Your task to perform on an android device: Go to accessibility settings Image 0: 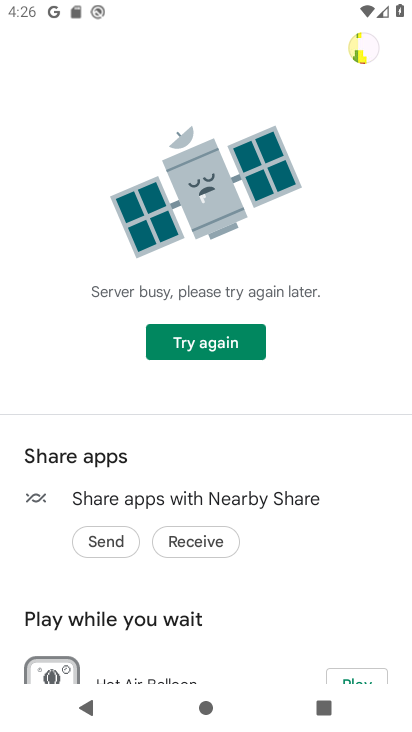
Step 0: press home button
Your task to perform on an android device: Go to accessibility settings Image 1: 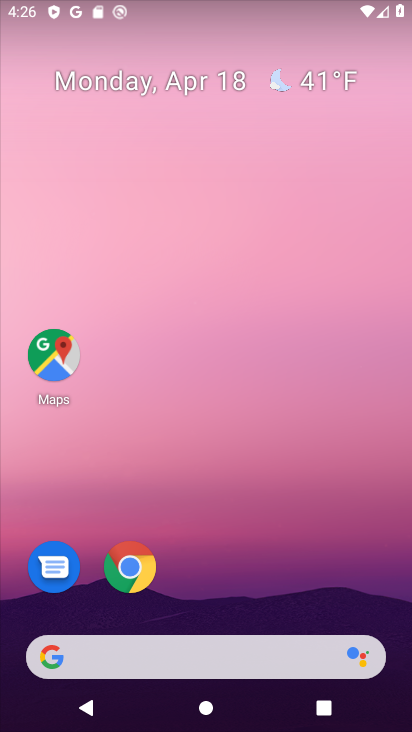
Step 1: drag from (180, 600) to (158, 49)
Your task to perform on an android device: Go to accessibility settings Image 2: 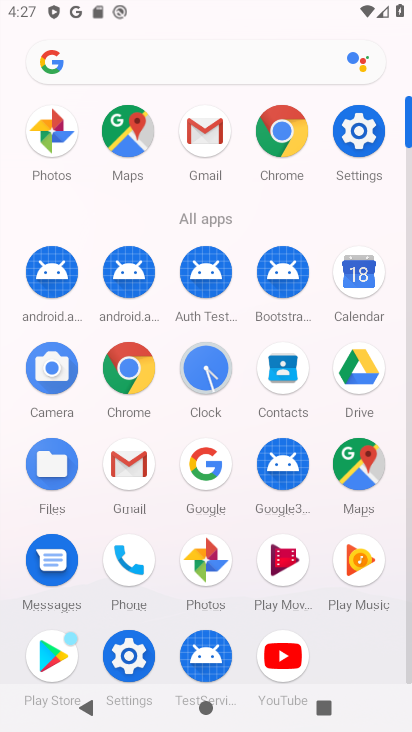
Step 2: click (363, 135)
Your task to perform on an android device: Go to accessibility settings Image 3: 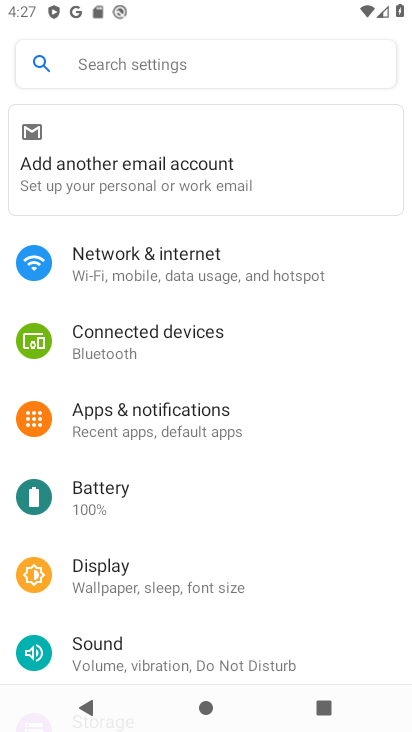
Step 3: drag from (197, 522) to (218, 442)
Your task to perform on an android device: Go to accessibility settings Image 4: 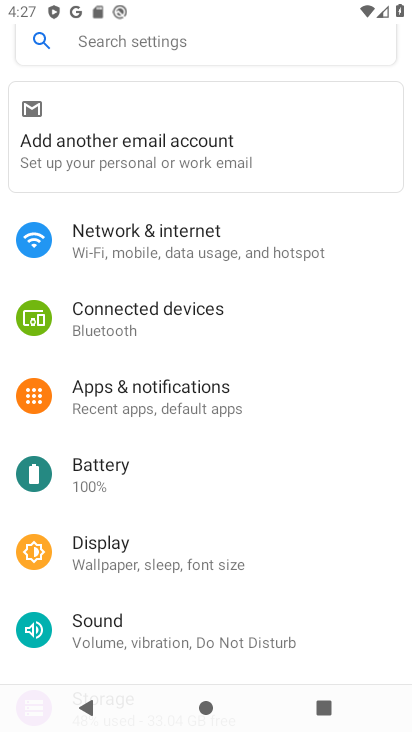
Step 4: drag from (187, 546) to (191, 413)
Your task to perform on an android device: Go to accessibility settings Image 5: 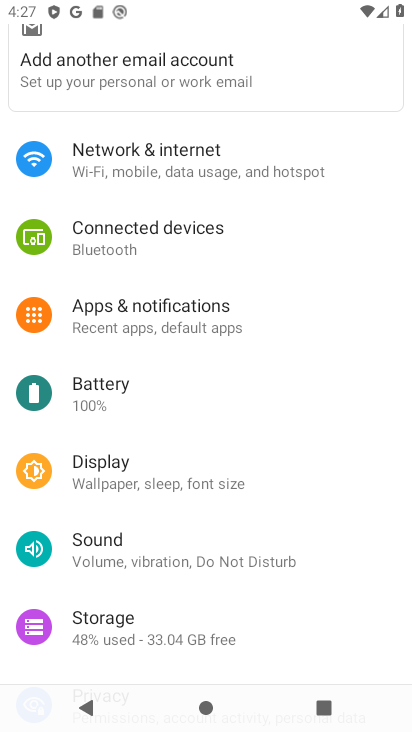
Step 5: drag from (149, 541) to (169, 423)
Your task to perform on an android device: Go to accessibility settings Image 6: 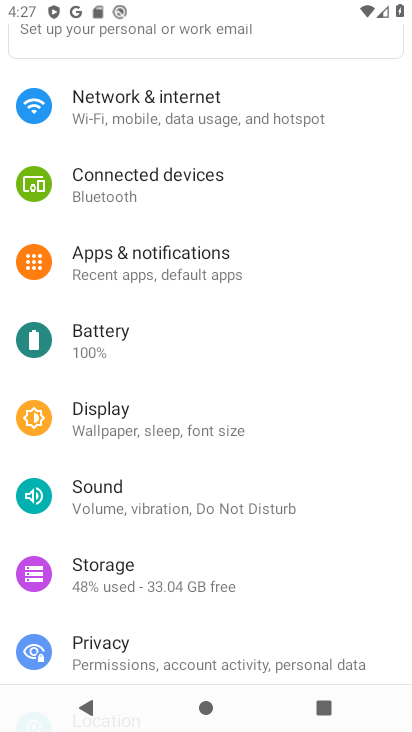
Step 6: drag from (158, 560) to (193, 371)
Your task to perform on an android device: Go to accessibility settings Image 7: 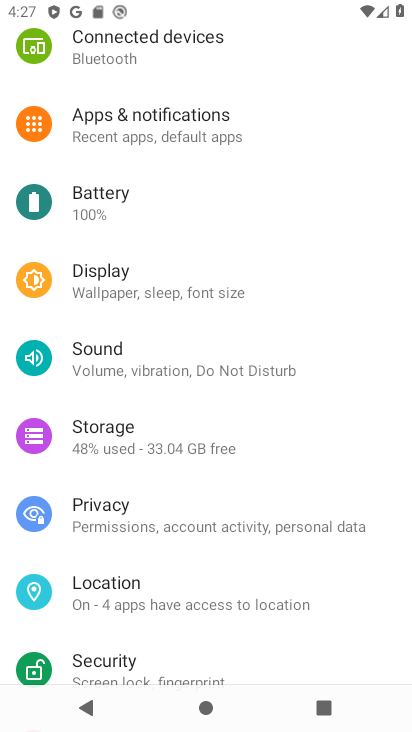
Step 7: drag from (150, 558) to (190, 400)
Your task to perform on an android device: Go to accessibility settings Image 8: 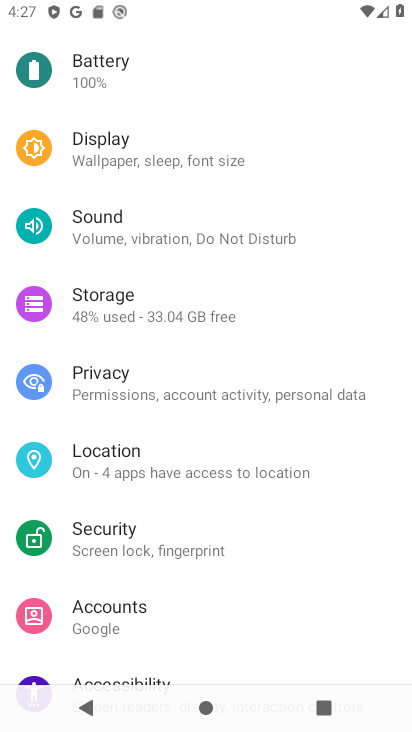
Step 8: drag from (158, 529) to (180, 411)
Your task to perform on an android device: Go to accessibility settings Image 9: 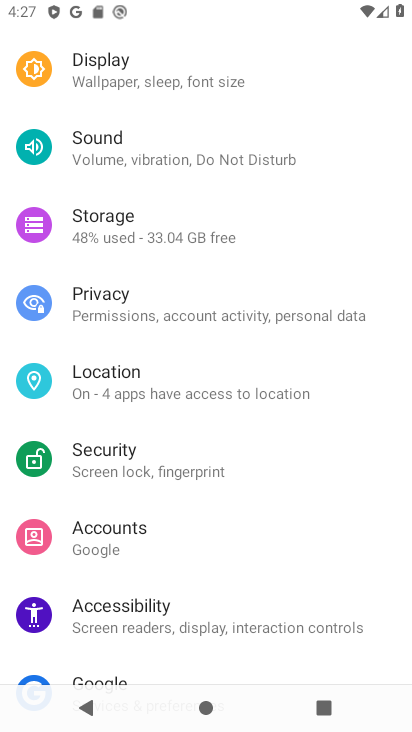
Step 9: drag from (194, 597) to (205, 483)
Your task to perform on an android device: Go to accessibility settings Image 10: 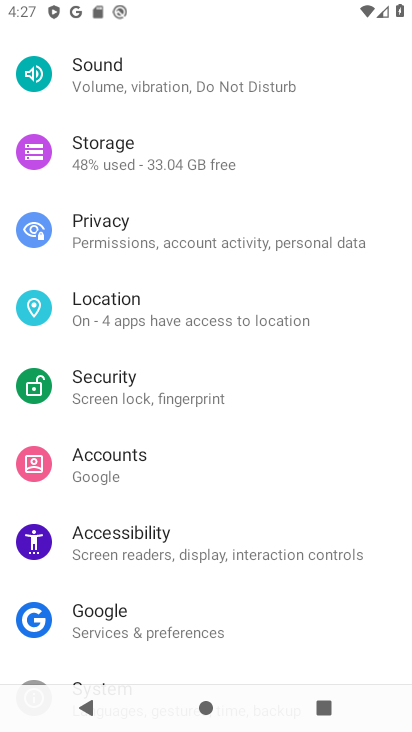
Step 10: click (140, 528)
Your task to perform on an android device: Go to accessibility settings Image 11: 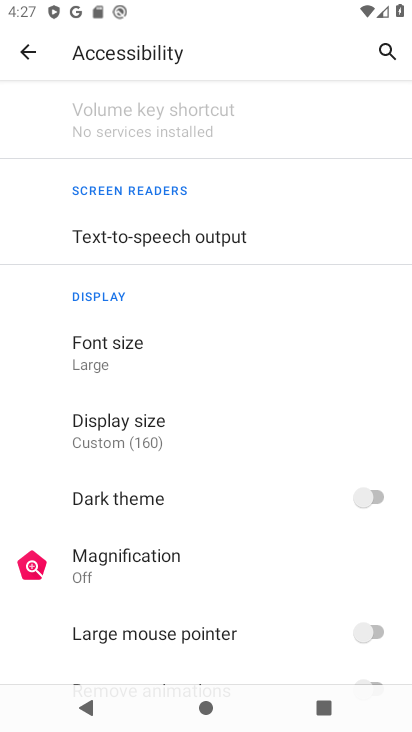
Step 11: task complete